Your task to perform on an android device: Open Google Chrome and click the shortcut for Amazon.com Image 0: 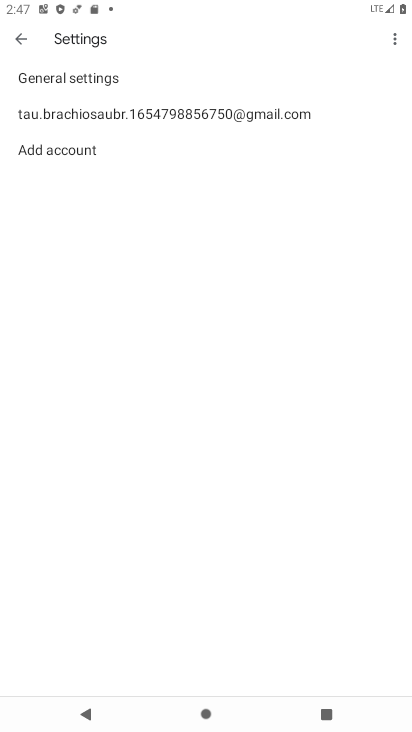
Step 0: press home button
Your task to perform on an android device: Open Google Chrome and click the shortcut for Amazon.com Image 1: 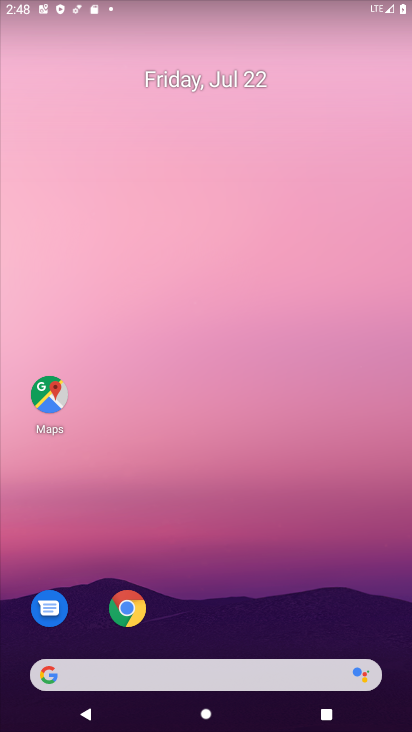
Step 1: click (130, 602)
Your task to perform on an android device: Open Google Chrome and click the shortcut for Amazon.com Image 2: 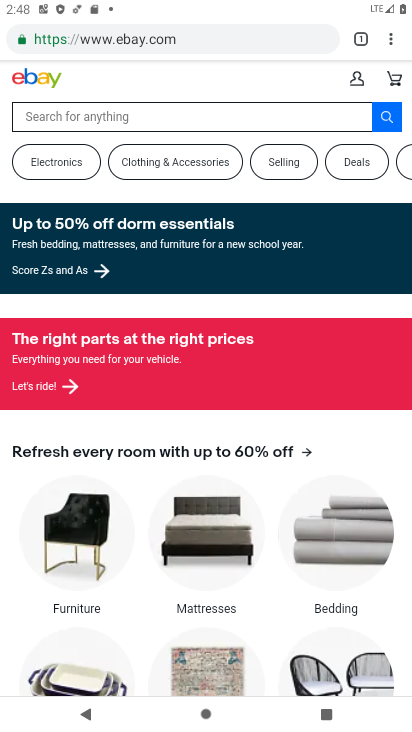
Step 2: click (368, 31)
Your task to perform on an android device: Open Google Chrome and click the shortcut for Amazon.com Image 3: 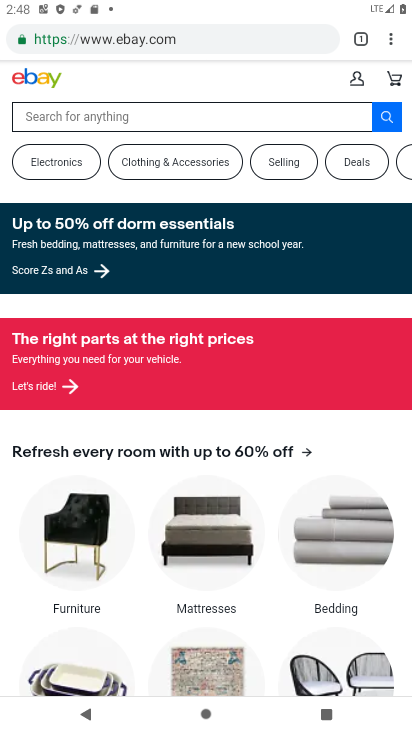
Step 3: click (369, 39)
Your task to perform on an android device: Open Google Chrome and click the shortcut for Amazon.com Image 4: 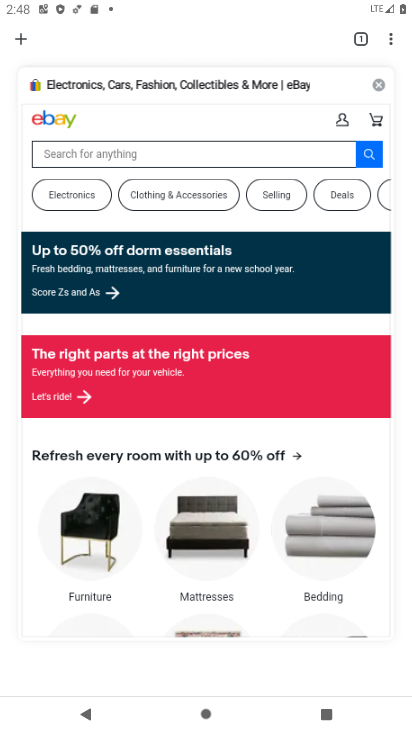
Step 4: click (23, 32)
Your task to perform on an android device: Open Google Chrome and click the shortcut for Amazon.com Image 5: 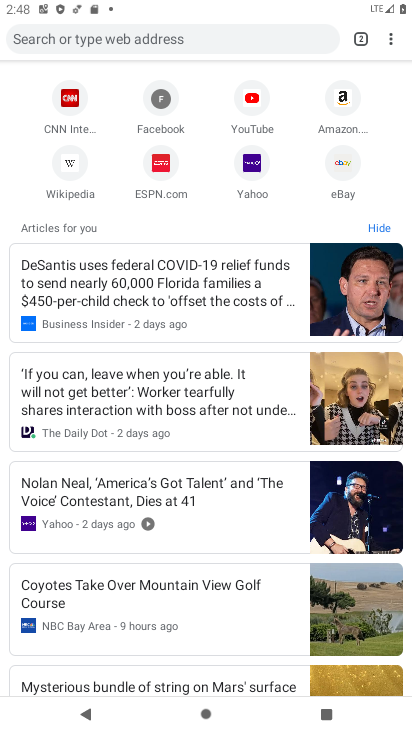
Step 5: click (337, 98)
Your task to perform on an android device: Open Google Chrome and click the shortcut for Amazon.com Image 6: 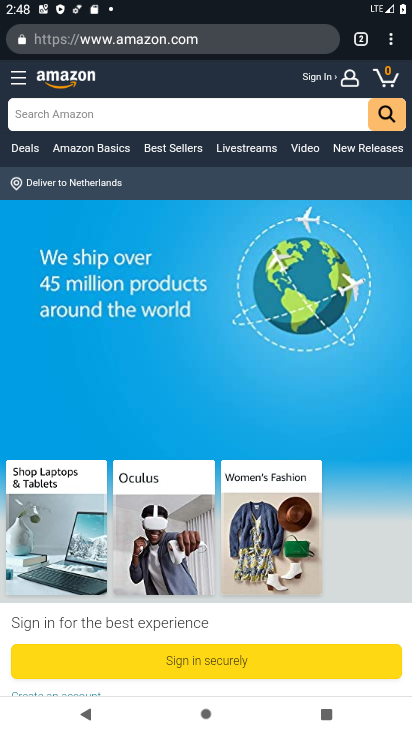
Step 6: task complete